Your task to perform on an android device: Go to Yahoo.com Image 0: 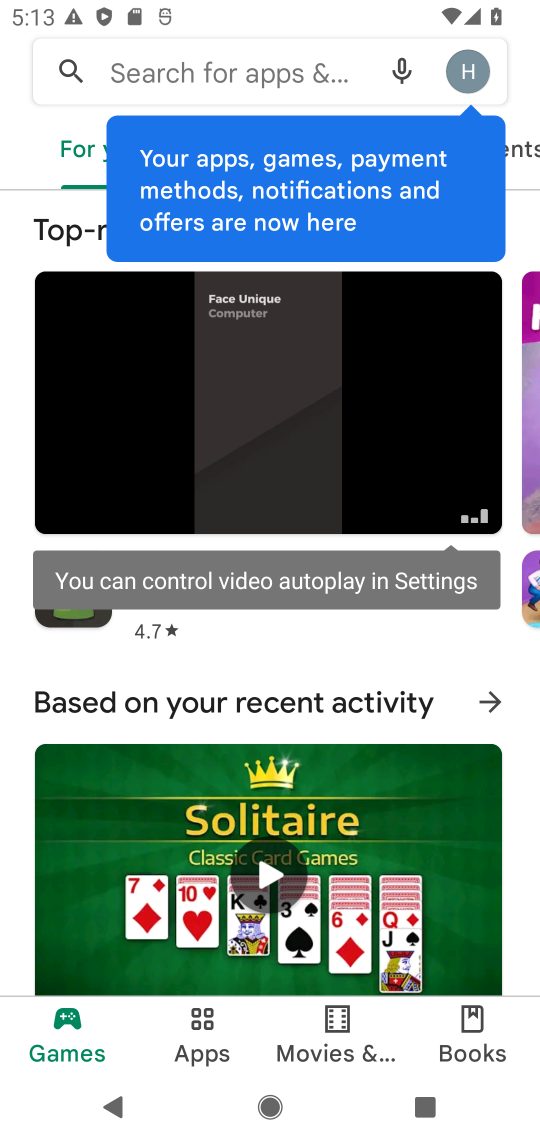
Step 0: press home button
Your task to perform on an android device: Go to Yahoo.com Image 1: 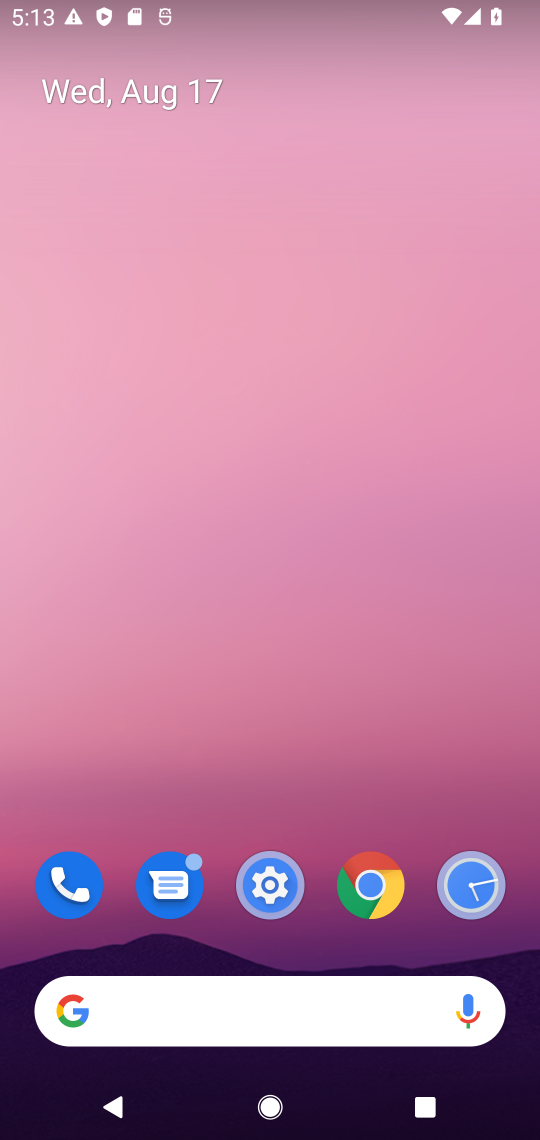
Step 1: drag from (315, 811) to (313, 121)
Your task to perform on an android device: Go to Yahoo.com Image 2: 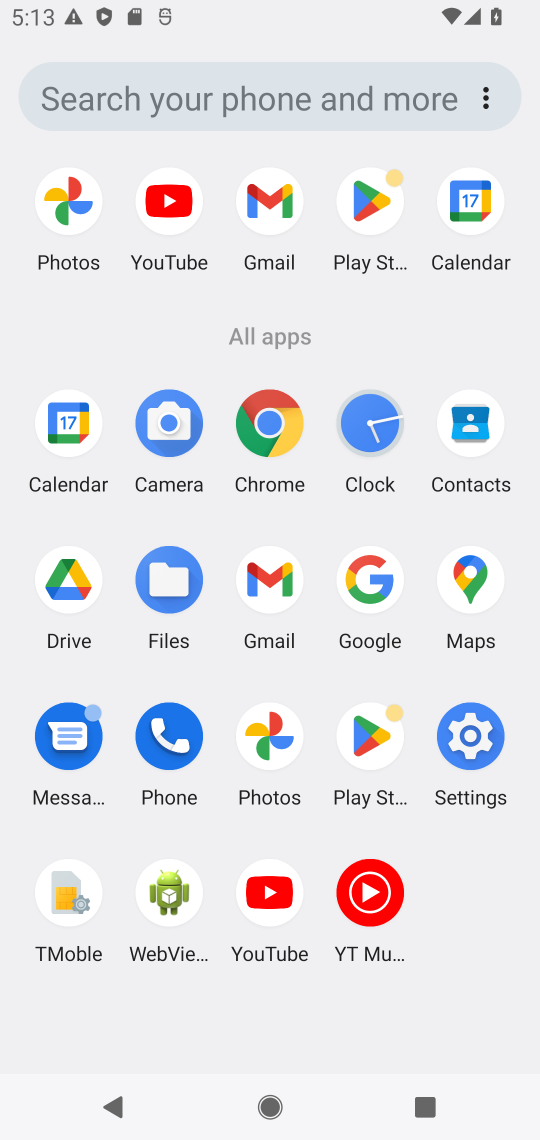
Step 2: click (270, 417)
Your task to perform on an android device: Go to Yahoo.com Image 3: 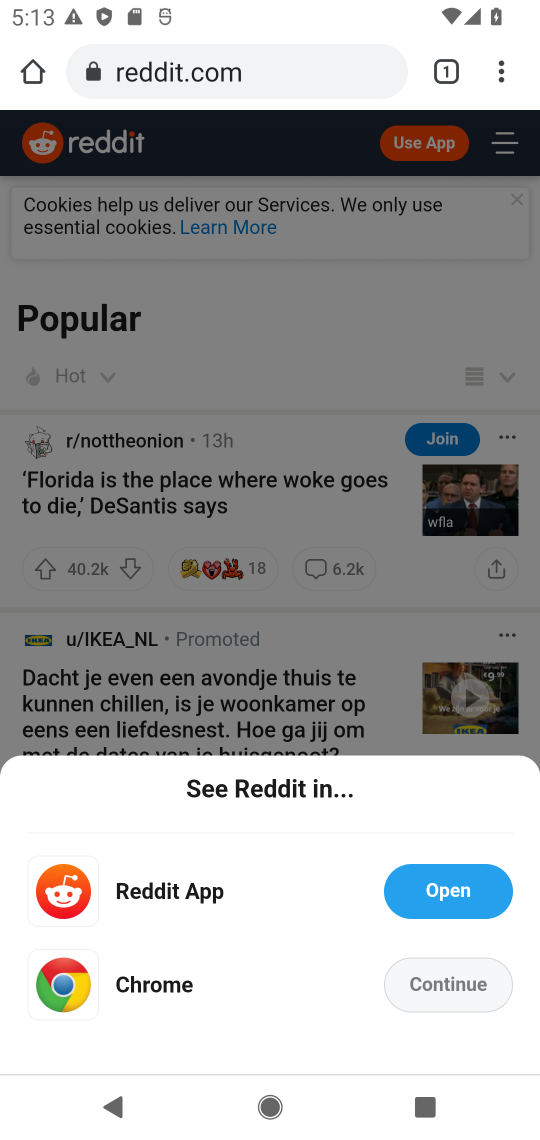
Step 3: click (269, 70)
Your task to perform on an android device: Go to Yahoo.com Image 4: 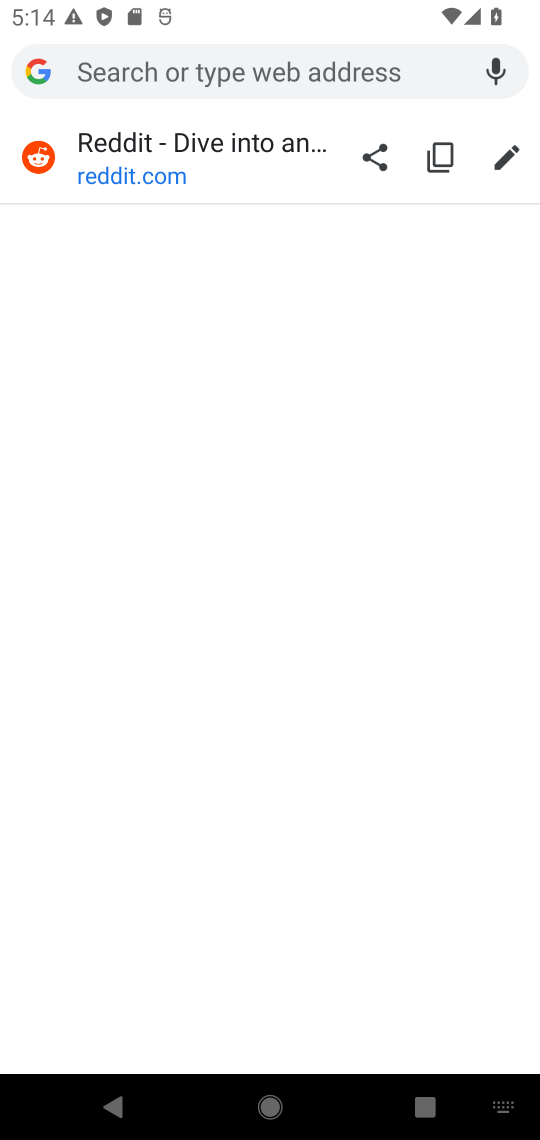
Step 4: type "y"
Your task to perform on an android device: Go to Yahoo.com Image 5: 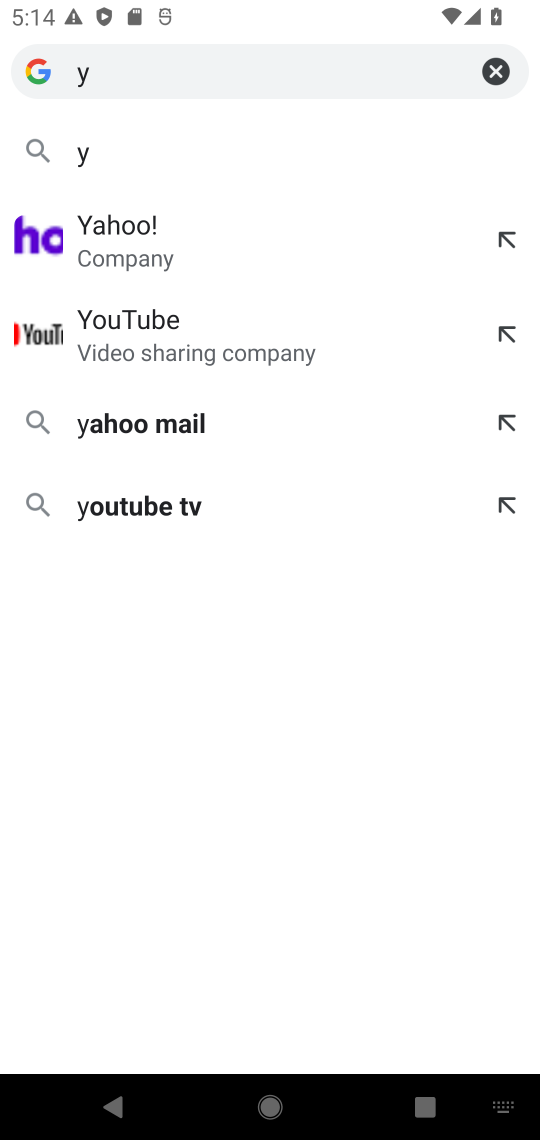
Step 5: type "ahoo.com"
Your task to perform on an android device: Go to Yahoo.com Image 6: 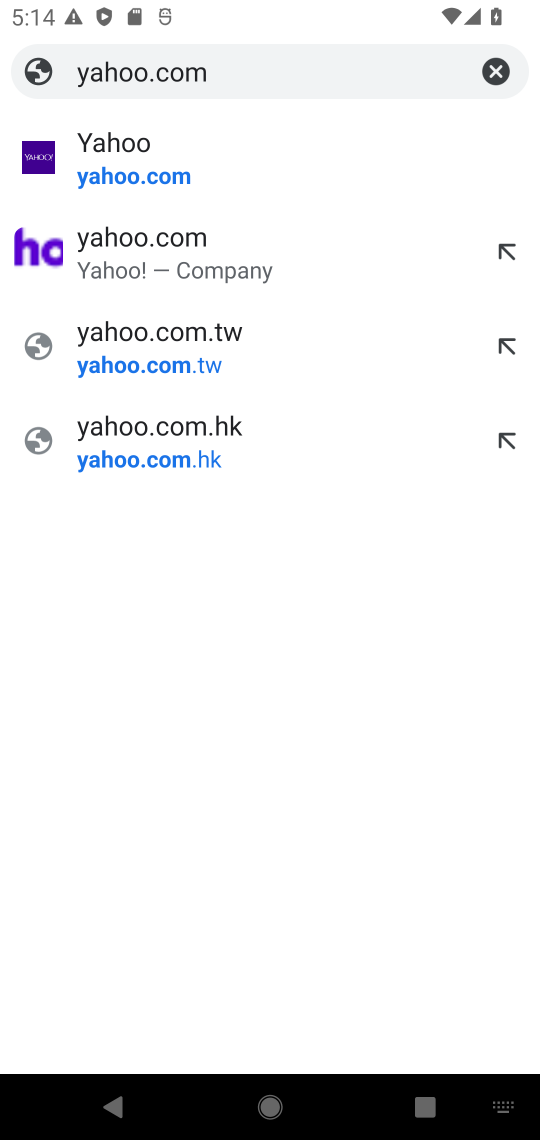
Step 6: click (92, 166)
Your task to perform on an android device: Go to Yahoo.com Image 7: 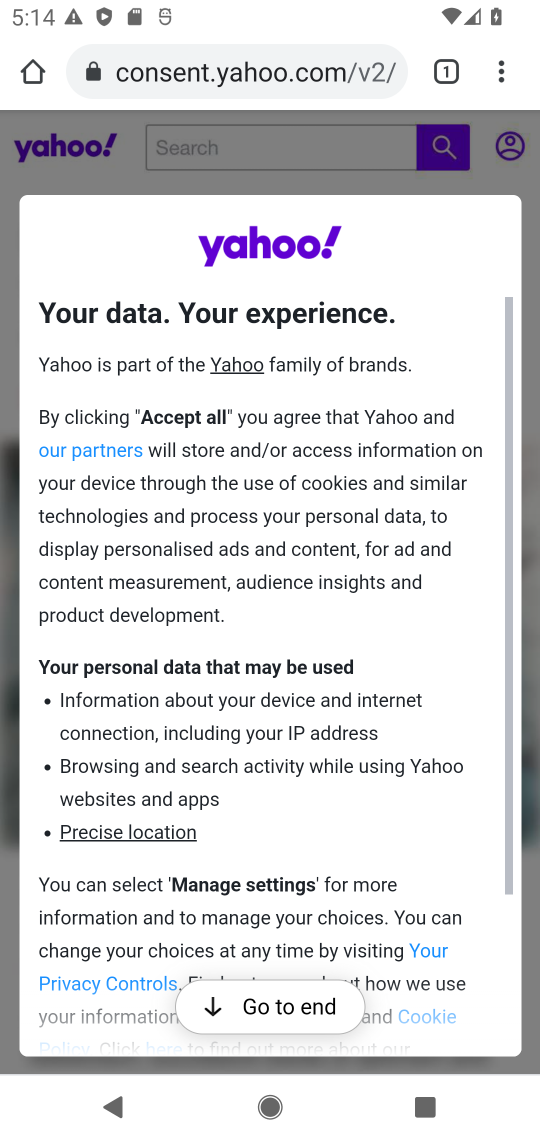
Step 7: task complete